Your task to perform on an android device: Search for seafood restaurants on Google Maps Image 0: 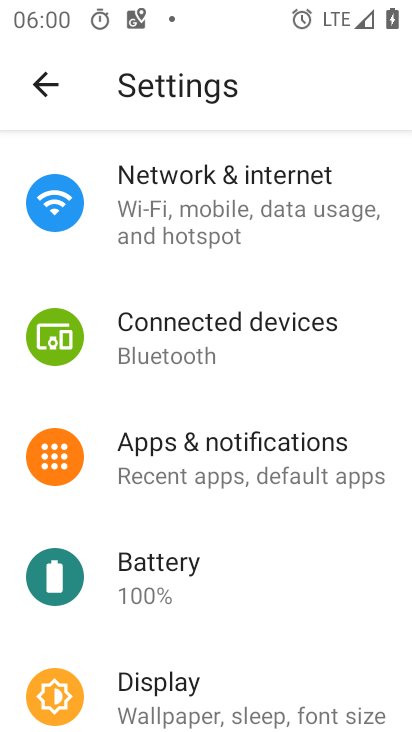
Step 0: press home button
Your task to perform on an android device: Search for seafood restaurants on Google Maps Image 1: 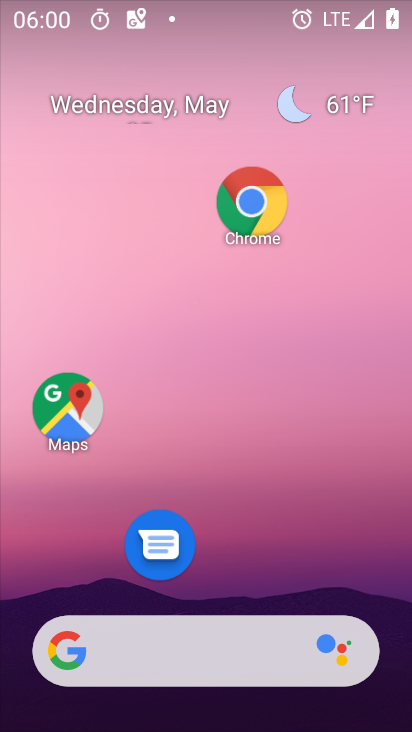
Step 1: click (88, 391)
Your task to perform on an android device: Search for seafood restaurants on Google Maps Image 2: 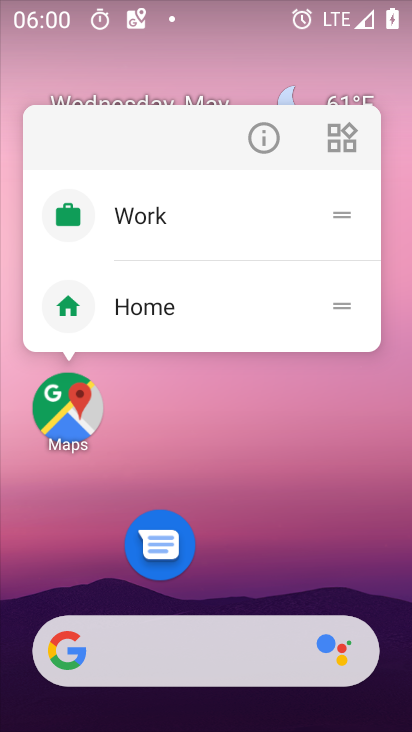
Step 2: click (77, 425)
Your task to perform on an android device: Search for seafood restaurants on Google Maps Image 3: 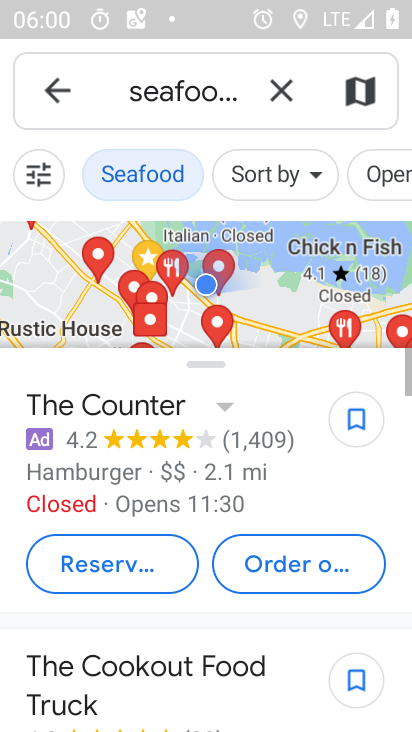
Step 3: click (261, 100)
Your task to perform on an android device: Search for seafood restaurants on Google Maps Image 4: 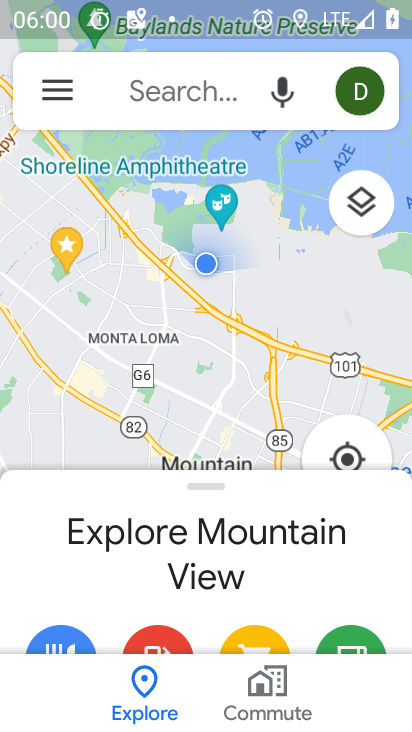
Step 4: type "seafood restaurants"
Your task to perform on an android device: Search for seafood restaurants on Google Maps Image 5: 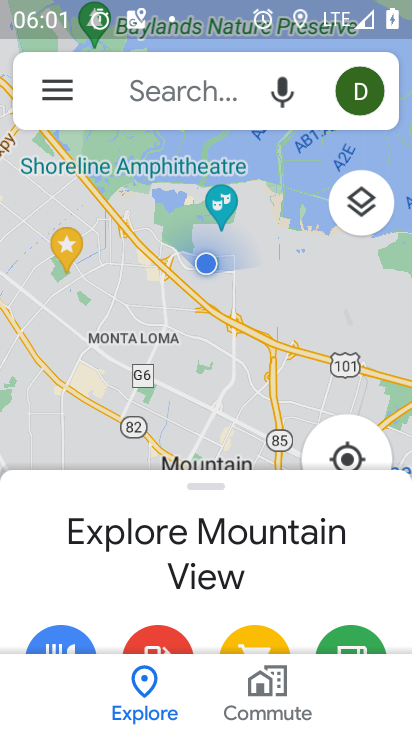
Step 5: click (203, 87)
Your task to perform on an android device: Search for seafood restaurants on Google Maps Image 6: 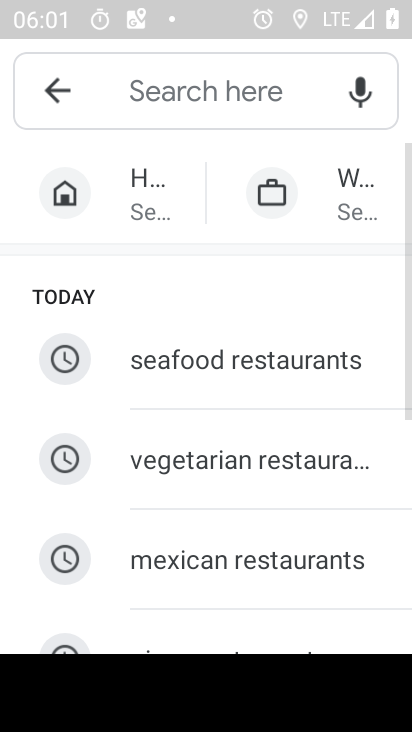
Step 6: click (312, 342)
Your task to perform on an android device: Search for seafood restaurants on Google Maps Image 7: 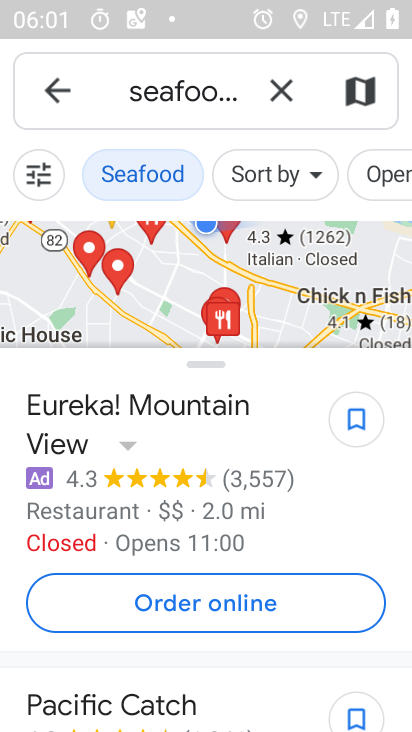
Step 7: task complete